Your task to perform on an android device: change notifications settings Image 0: 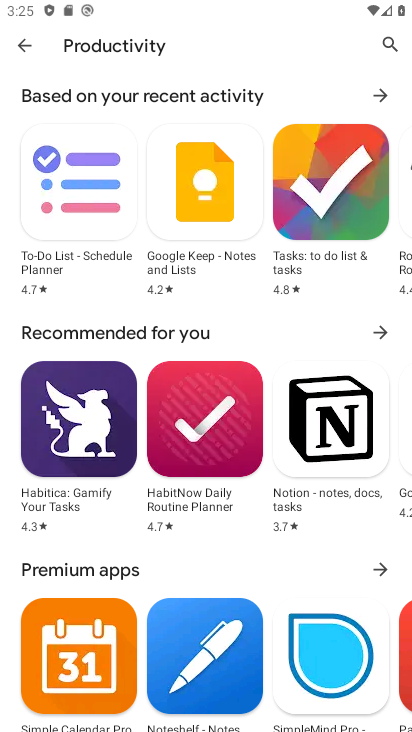
Step 0: press back button
Your task to perform on an android device: change notifications settings Image 1: 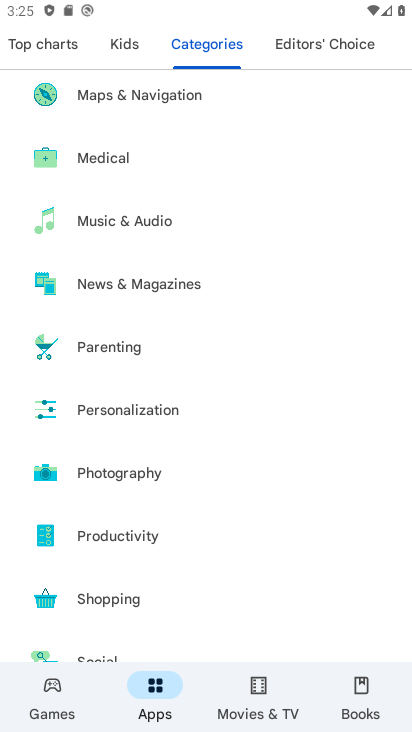
Step 1: press back button
Your task to perform on an android device: change notifications settings Image 2: 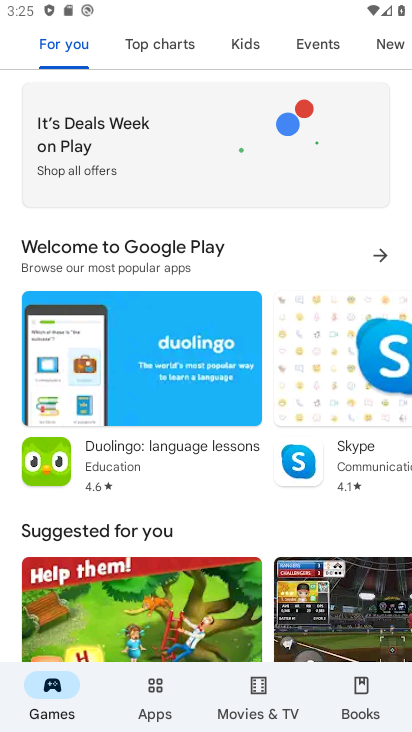
Step 2: press back button
Your task to perform on an android device: change notifications settings Image 3: 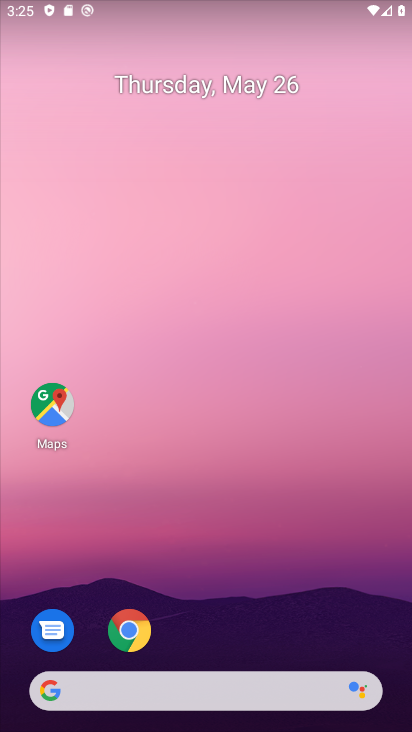
Step 3: drag from (234, 609) to (242, 197)
Your task to perform on an android device: change notifications settings Image 4: 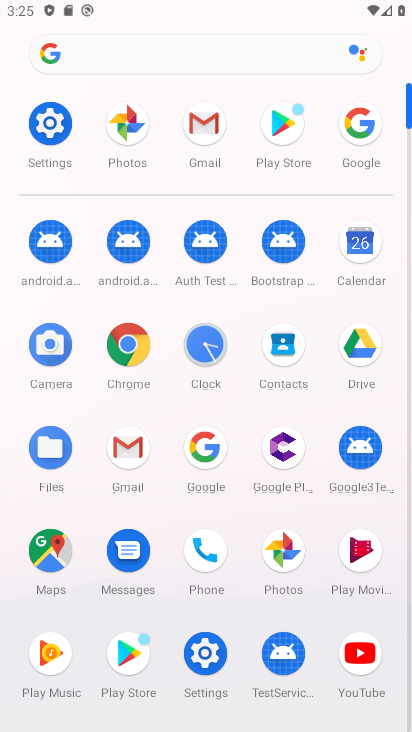
Step 4: click (53, 121)
Your task to perform on an android device: change notifications settings Image 5: 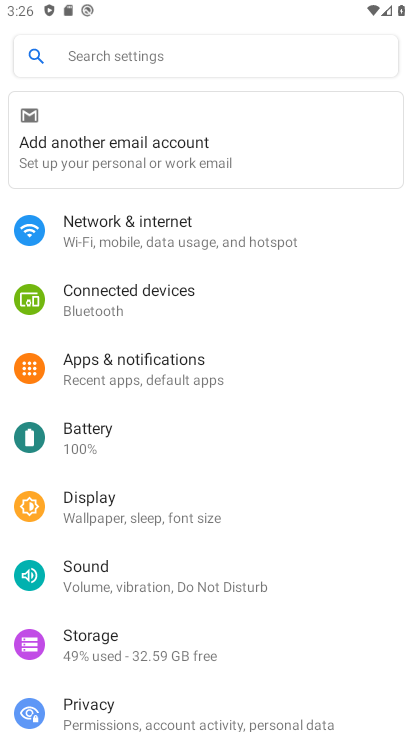
Step 5: drag from (148, 457) to (216, 359)
Your task to perform on an android device: change notifications settings Image 6: 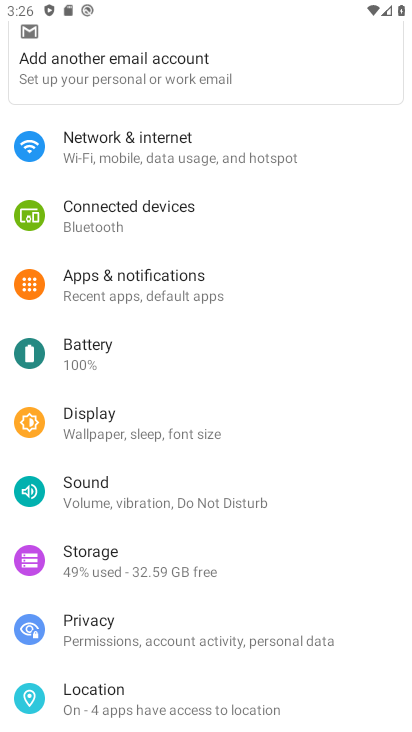
Step 6: click (140, 300)
Your task to perform on an android device: change notifications settings Image 7: 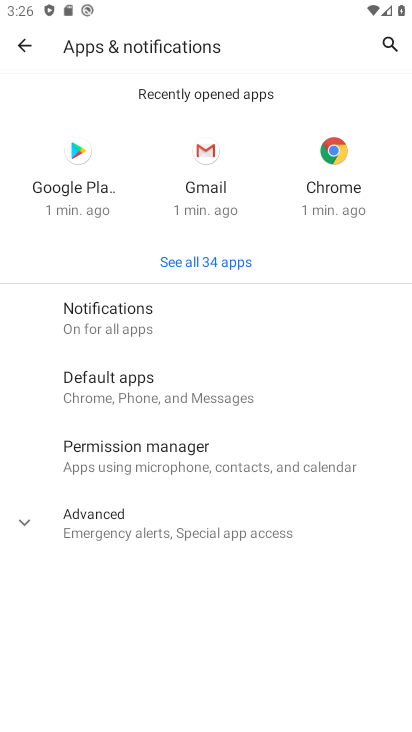
Step 7: click (119, 322)
Your task to perform on an android device: change notifications settings Image 8: 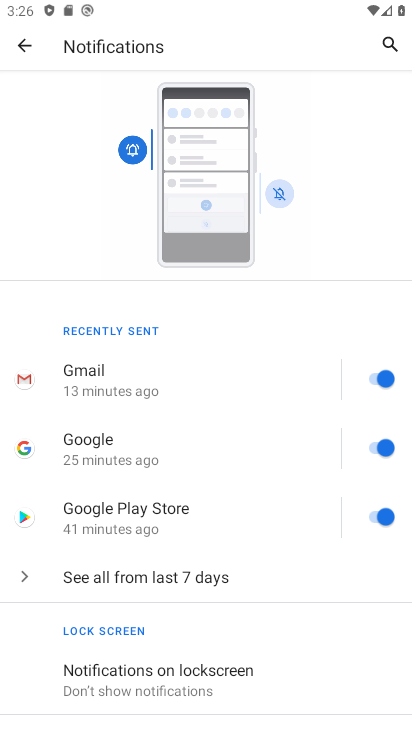
Step 8: drag from (161, 628) to (227, 512)
Your task to perform on an android device: change notifications settings Image 9: 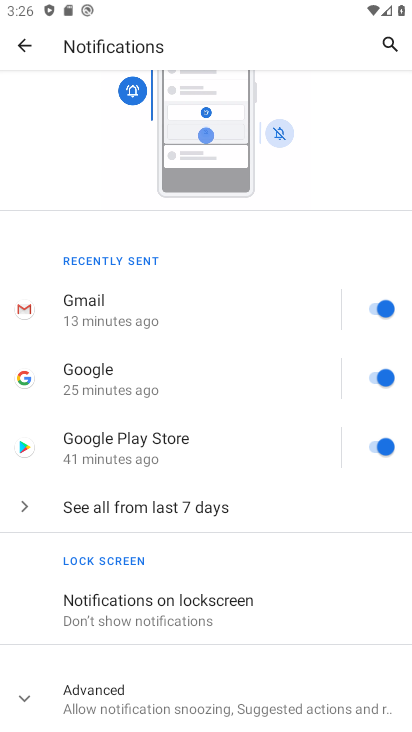
Step 9: click (162, 706)
Your task to perform on an android device: change notifications settings Image 10: 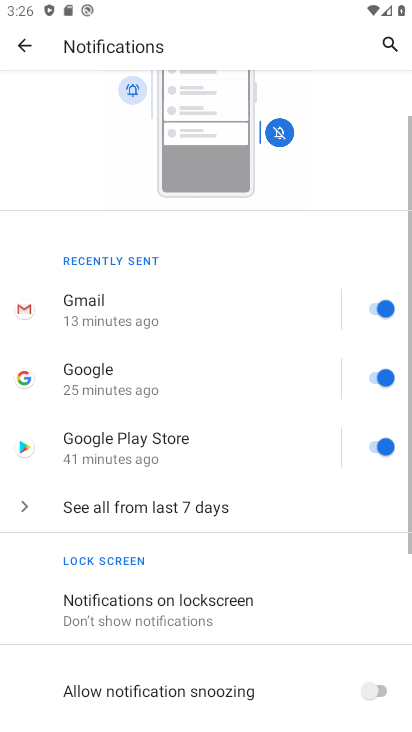
Step 10: drag from (162, 657) to (220, 497)
Your task to perform on an android device: change notifications settings Image 11: 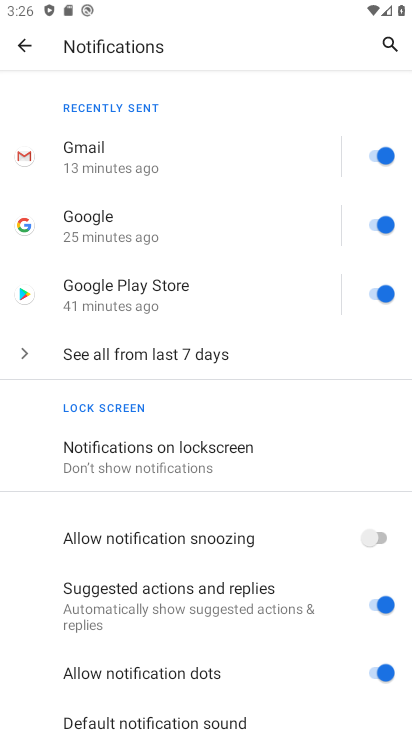
Step 11: click (378, 667)
Your task to perform on an android device: change notifications settings Image 12: 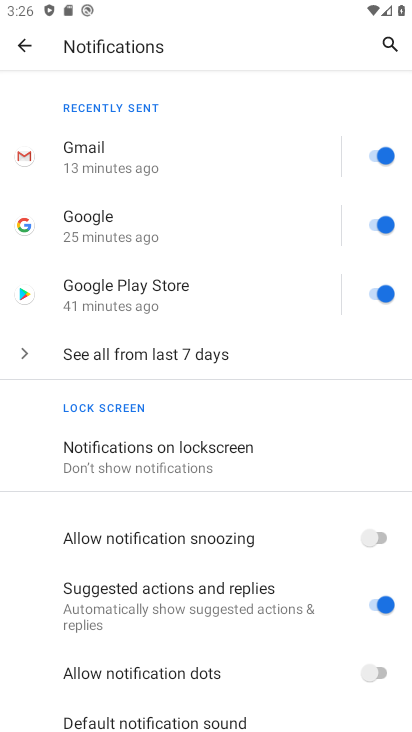
Step 12: task complete